Your task to perform on an android device: empty trash in google photos Image 0: 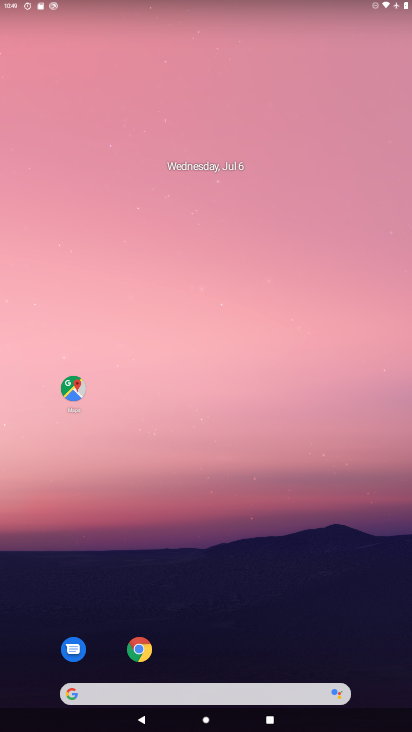
Step 0: drag from (400, 716) to (360, 263)
Your task to perform on an android device: empty trash in google photos Image 1: 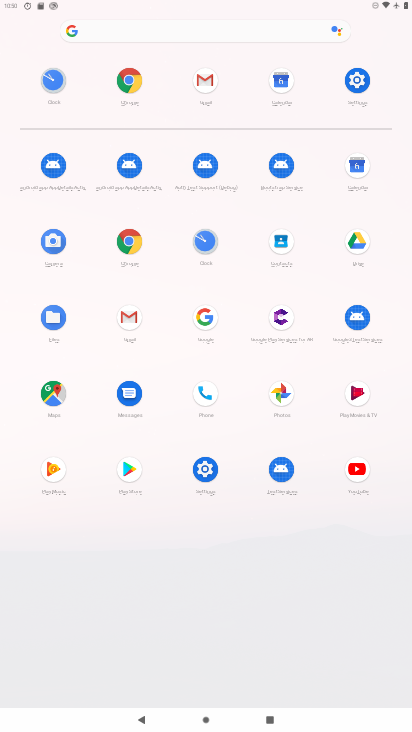
Step 1: click (291, 389)
Your task to perform on an android device: empty trash in google photos Image 2: 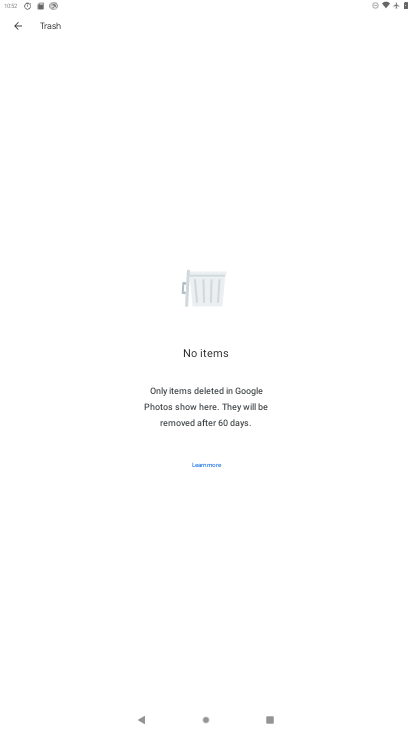
Step 2: task complete